Your task to perform on an android device: turn off smart reply in the gmail app Image 0: 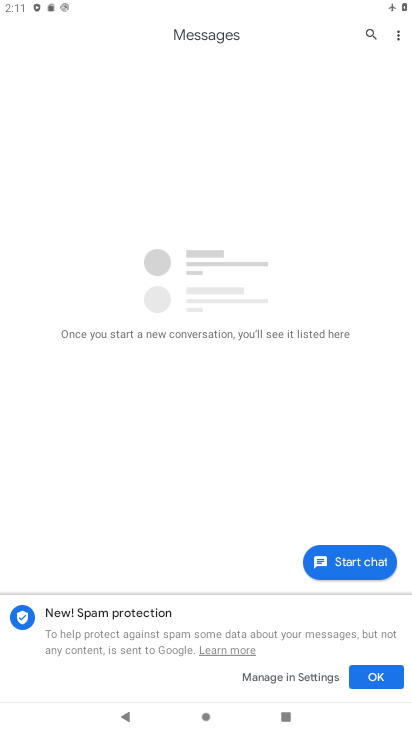
Step 0: click (41, 693)
Your task to perform on an android device: turn off smart reply in the gmail app Image 1: 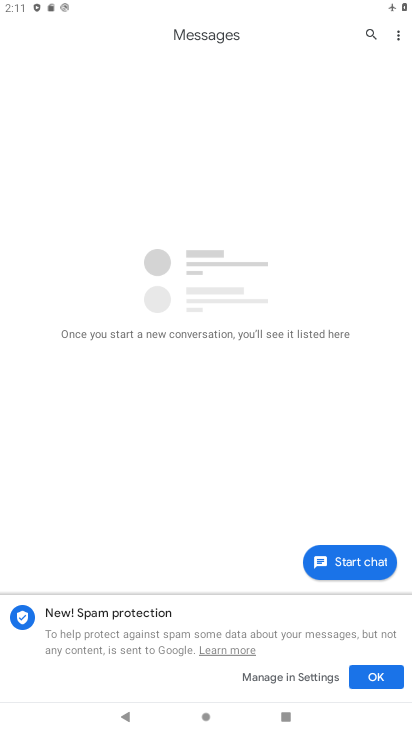
Step 1: press home button
Your task to perform on an android device: turn off smart reply in the gmail app Image 2: 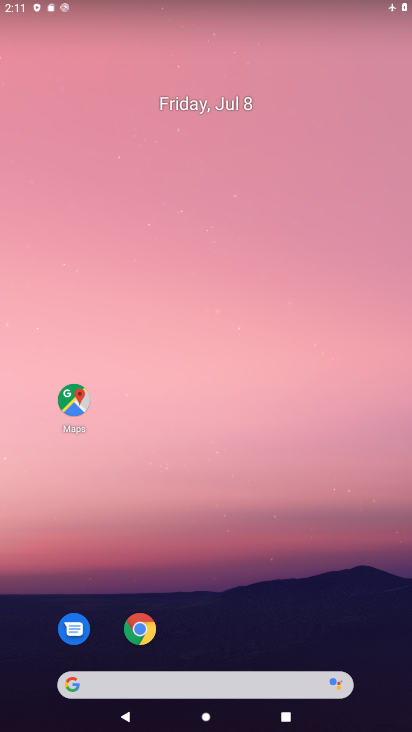
Step 2: drag from (33, 714) to (323, 41)
Your task to perform on an android device: turn off smart reply in the gmail app Image 3: 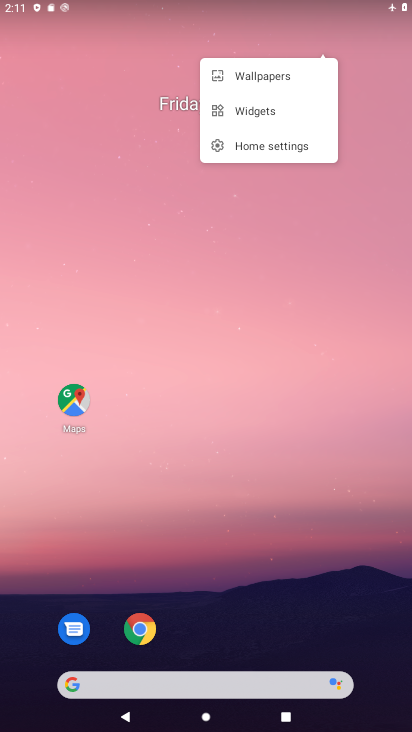
Step 3: drag from (31, 678) to (191, 104)
Your task to perform on an android device: turn off smart reply in the gmail app Image 4: 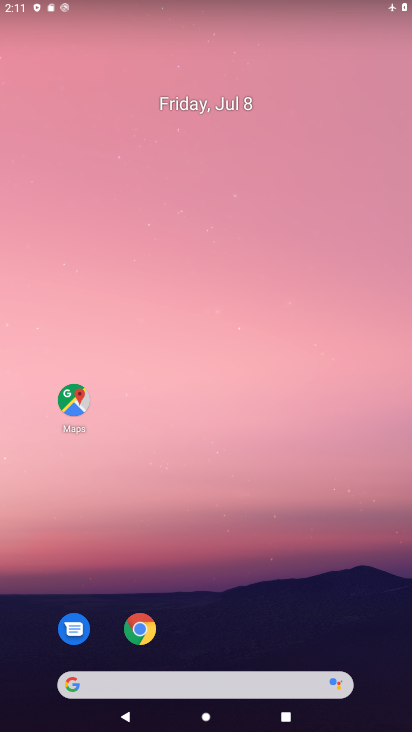
Step 4: drag from (42, 703) to (183, 82)
Your task to perform on an android device: turn off smart reply in the gmail app Image 5: 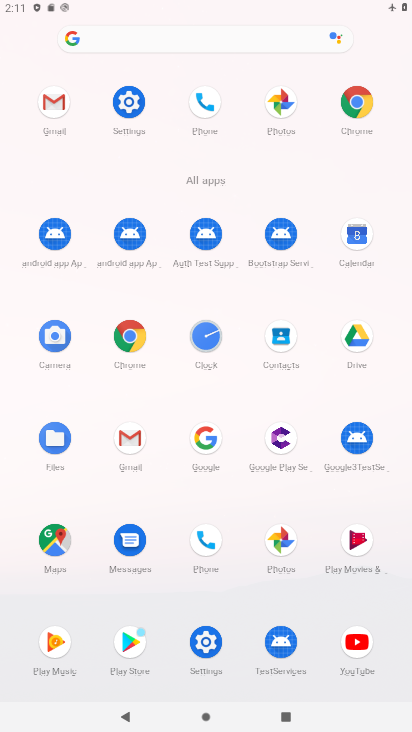
Step 5: drag from (104, 431) to (135, 457)
Your task to perform on an android device: turn off smart reply in the gmail app Image 6: 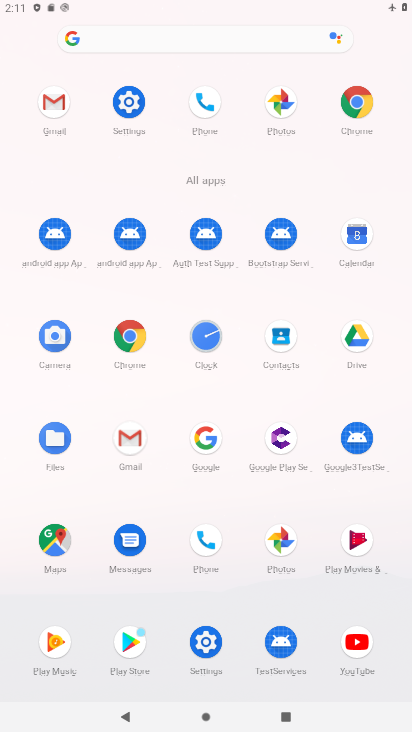
Step 6: click (133, 451)
Your task to perform on an android device: turn off smart reply in the gmail app Image 7: 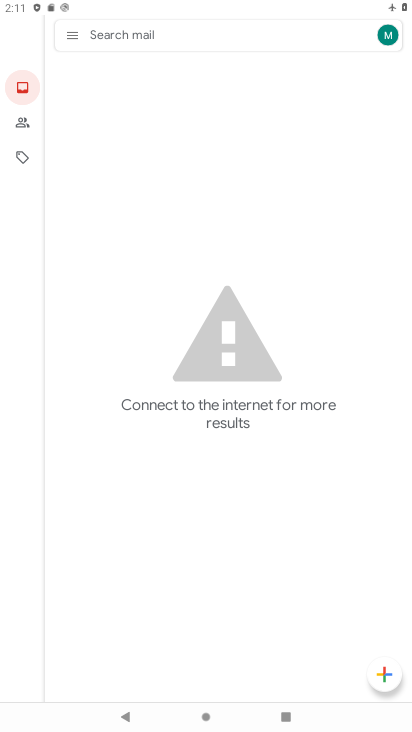
Step 7: task complete